Your task to perform on an android device: read, delete, or share a saved page in the chrome app Image 0: 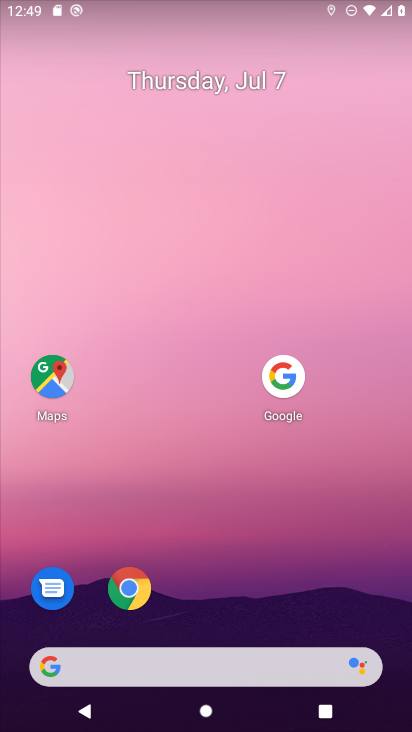
Step 0: click (131, 586)
Your task to perform on an android device: read, delete, or share a saved page in the chrome app Image 1: 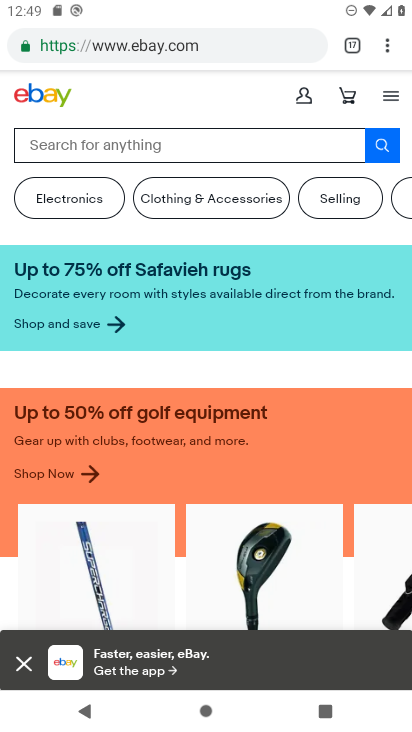
Step 1: drag from (386, 47) to (256, 298)
Your task to perform on an android device: read, delete, or share a saved page in the chrome app Image 2: 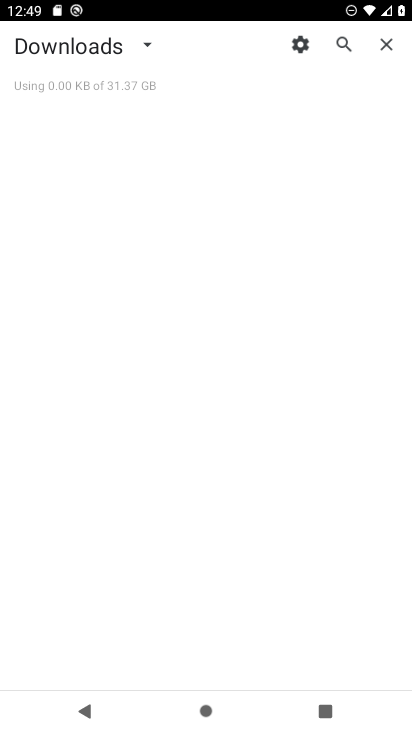
Step 2: click (147, 41)
Your task to perform on an android device: read, delete, or share a saved page in the chrome app Image 3: 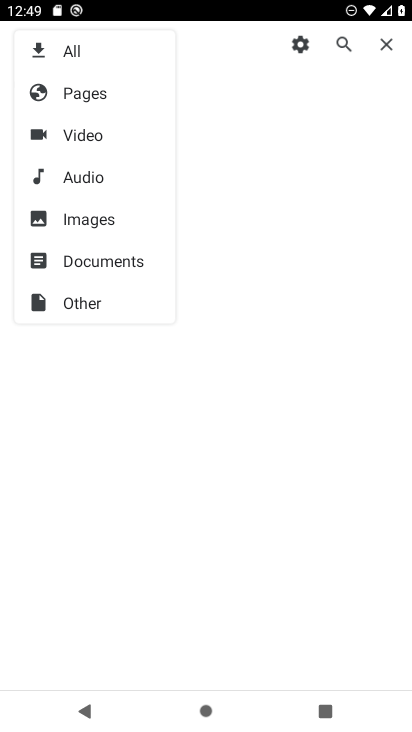
Step 3: click (98, 92)
Your task to perform on an android device: read, delete, or share a saved page in the chrome app Image 4: 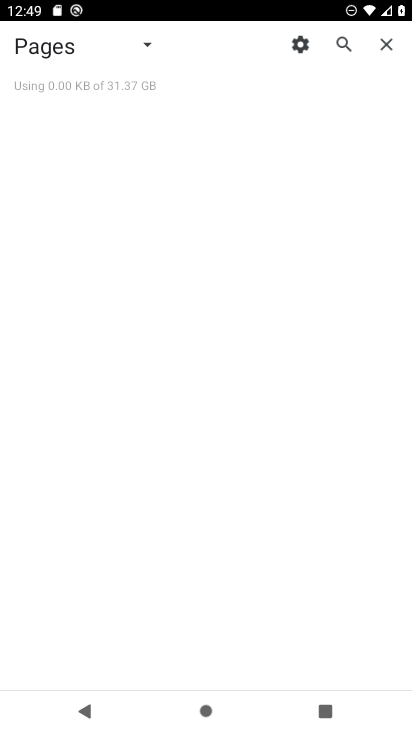
Step 4: task complete